Your task to perform on an android device: Open Maps and search for coffee Image 0: 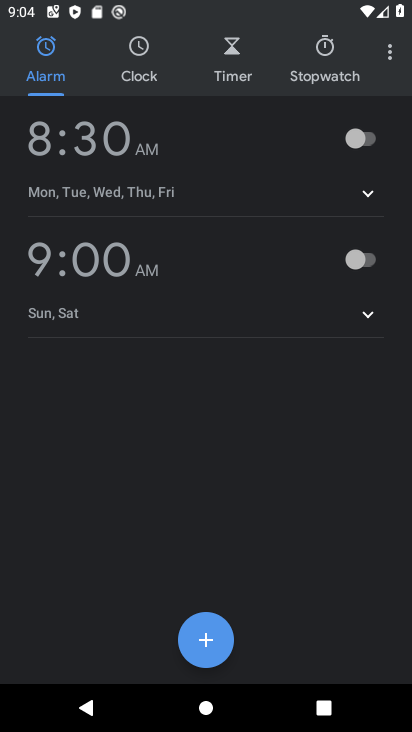
Step 0: press home button
Your task to perform on an android device: Open Maps and search for coffee Image 1: 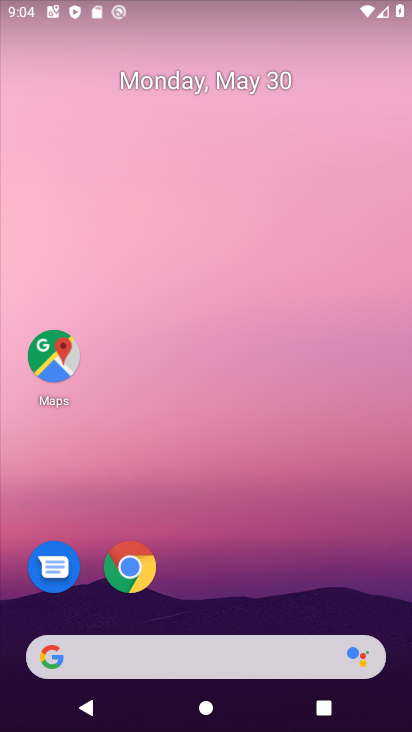
Step 1: click (41, 362)
Your task to perform on an android device: Open Maps and search for coffee Image 2: 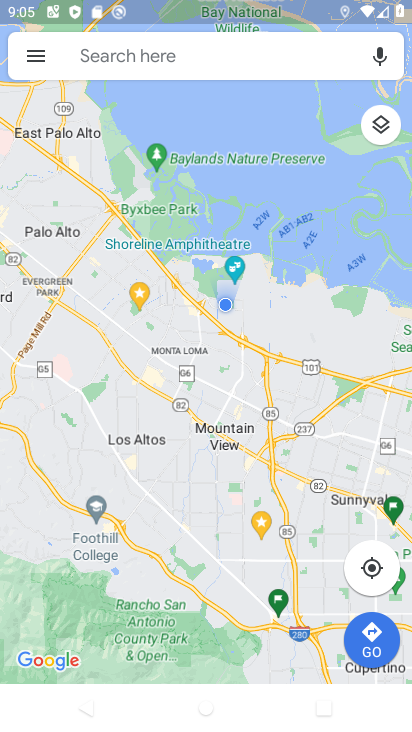
Step 2: click (89, 59)
Your task to perform on an android device: Open Maps and search for coffee Image 3: 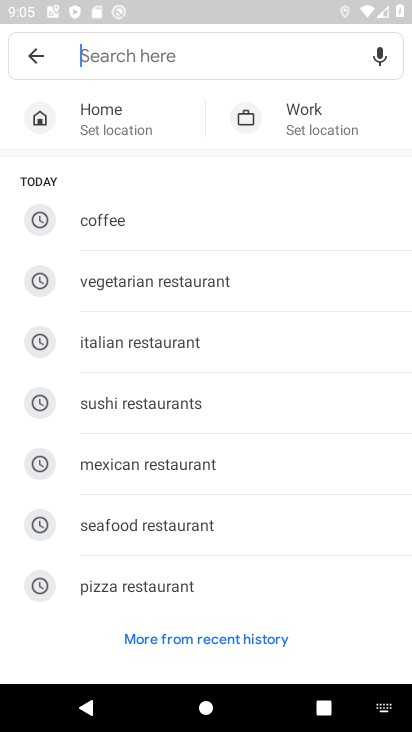
Step 3: click (119, 215)
Your task to perform on an android device: Open Maps and search for coffee Image 4: 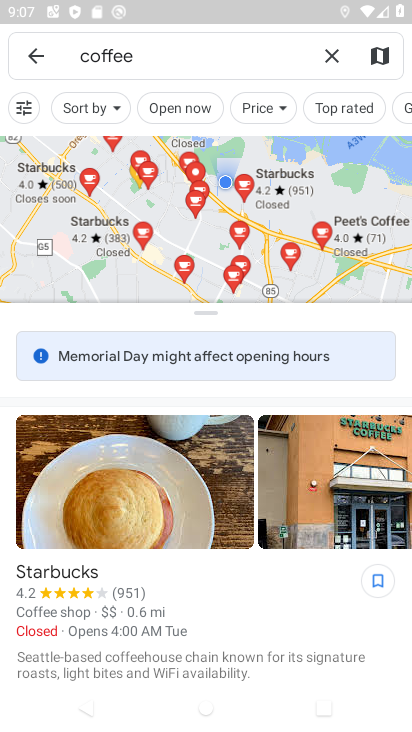
Step 4: task complete